Your task to perform on an android device: Show me popular videos on Youtube Image 0: 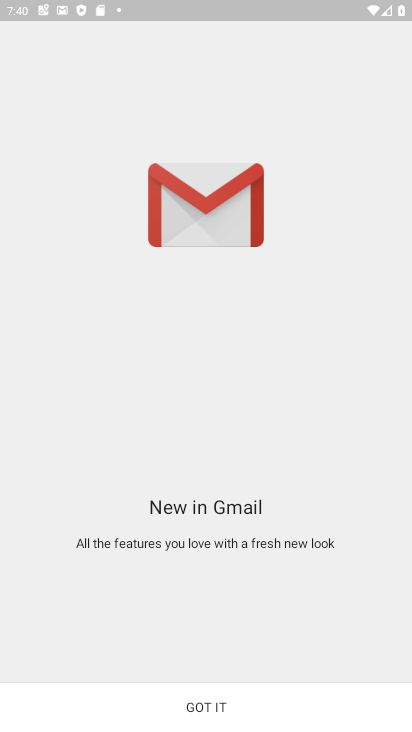
Step 0: press home button
Your task to perform on an android device: Show me popular videos on Youtube Image 1: 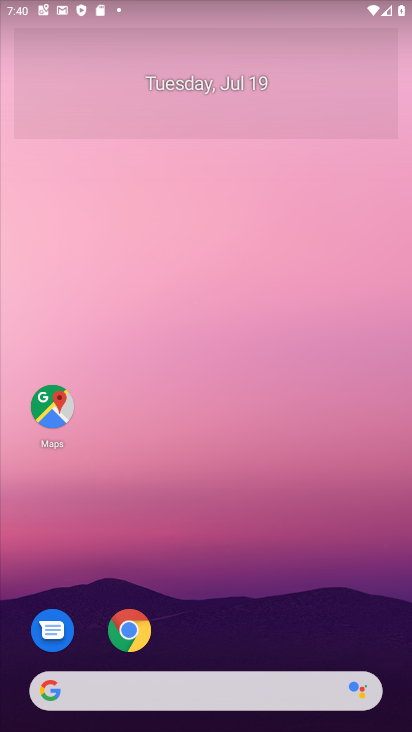
Step 1: drag from (306, 635) to (242, 124)
Your task to perform on an android device: Show me popular videos on Youtube Image 2: 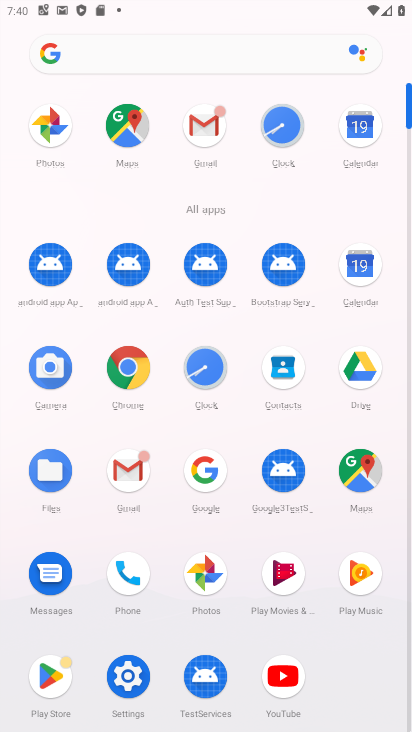
Step 2: click (282, 675)
Your task to perform on an android device: Show me popular videos on Youtube Image 3: 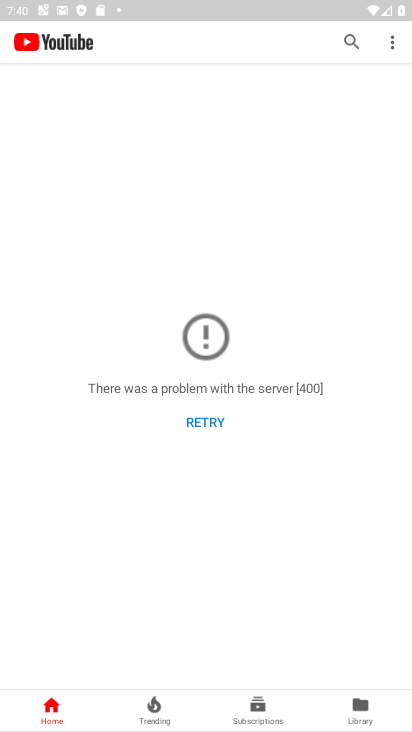
Step 3: click (195, 417)
Your task to perform on an android device: Show me popular videos on Youtube Image 4: 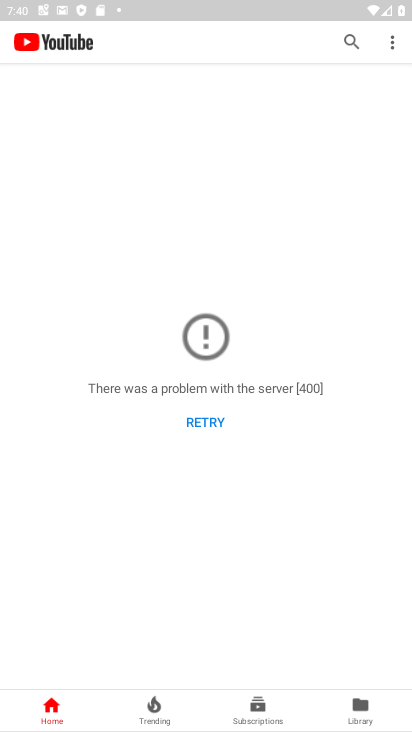
Step 4: task complete